Your task to perform on an android device: What's on my calendar today? Image 0: 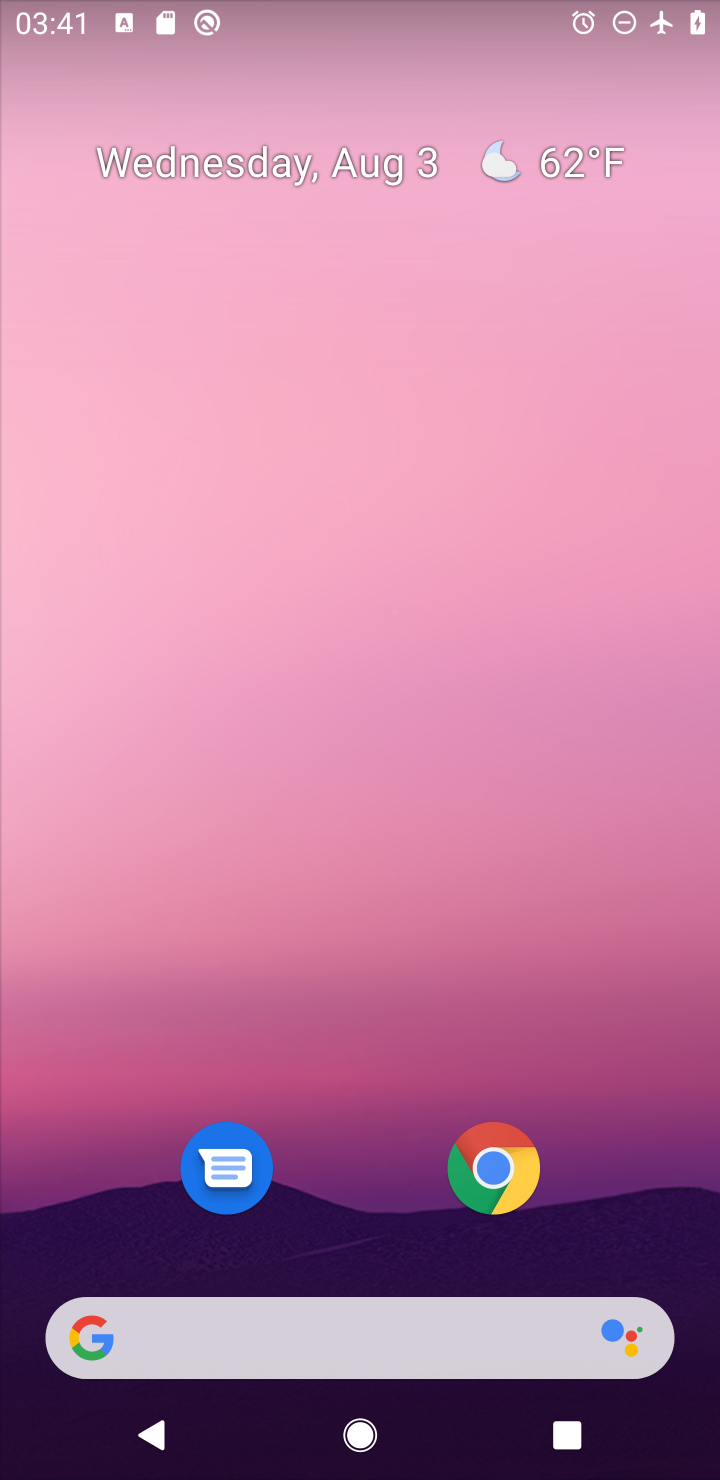
Step 0: press home button
Your task to perform on an android device: What's on my calendar today? Image 1: 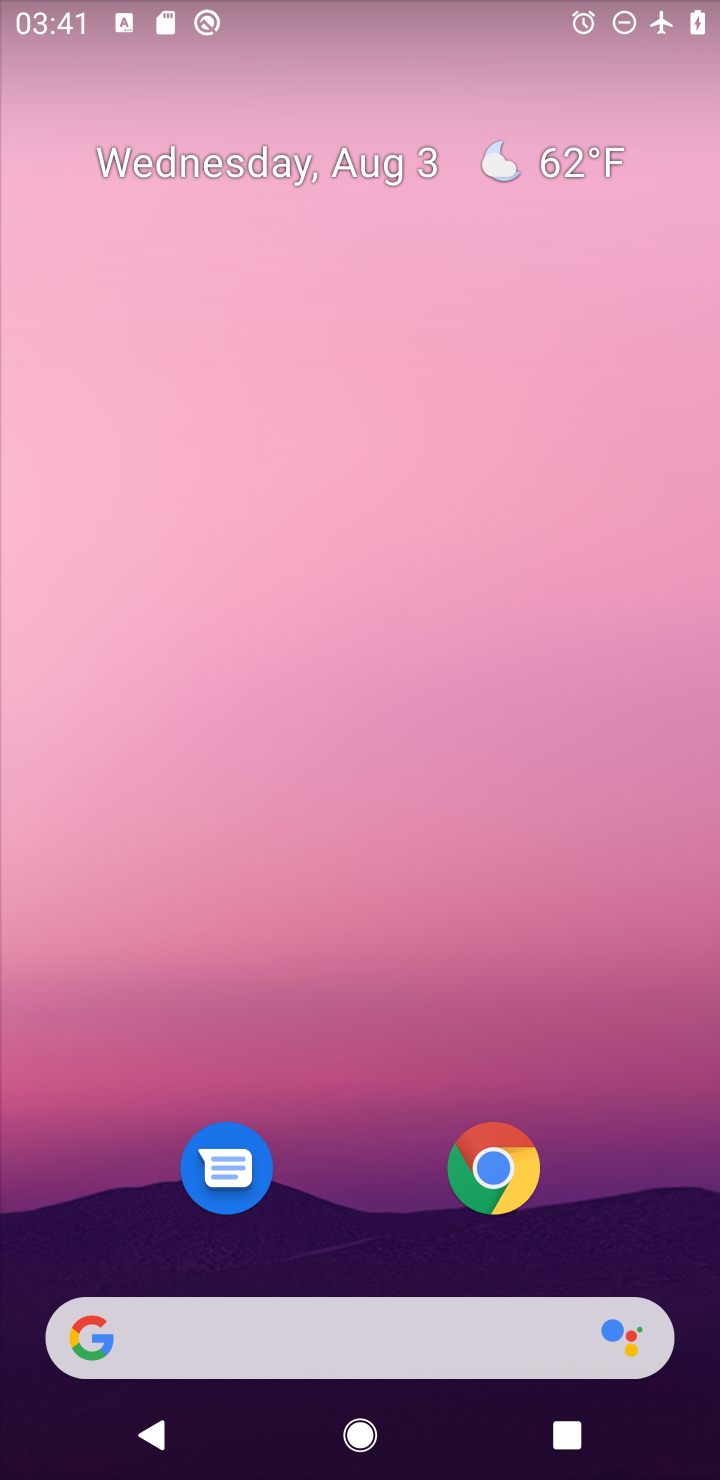
Step 1: drag from (668, 1219) to (579, 252)
Your task to perform on an android device: What's on my calendar today? Image 2: 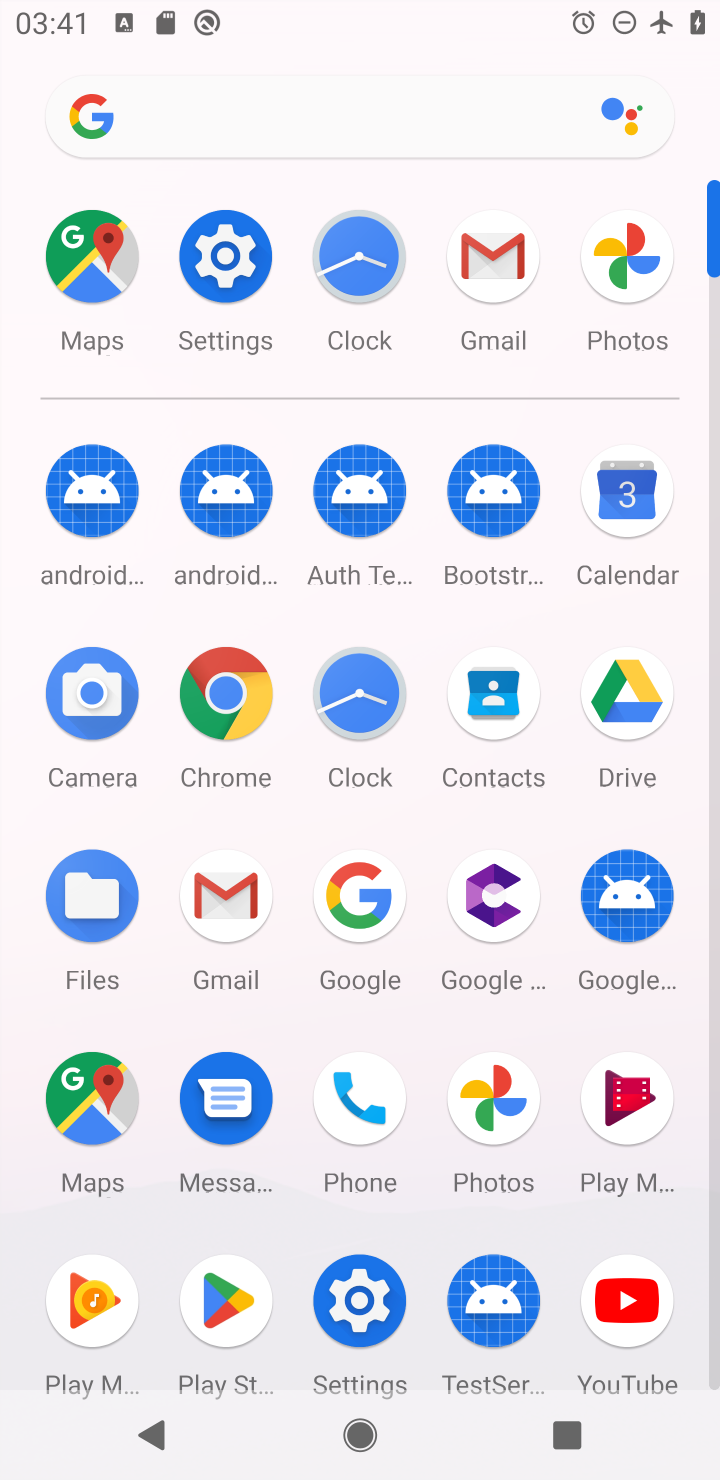
Step 2: click (626, 507)
Your task to perform on an android device: What's on my calendar today? Image 3: 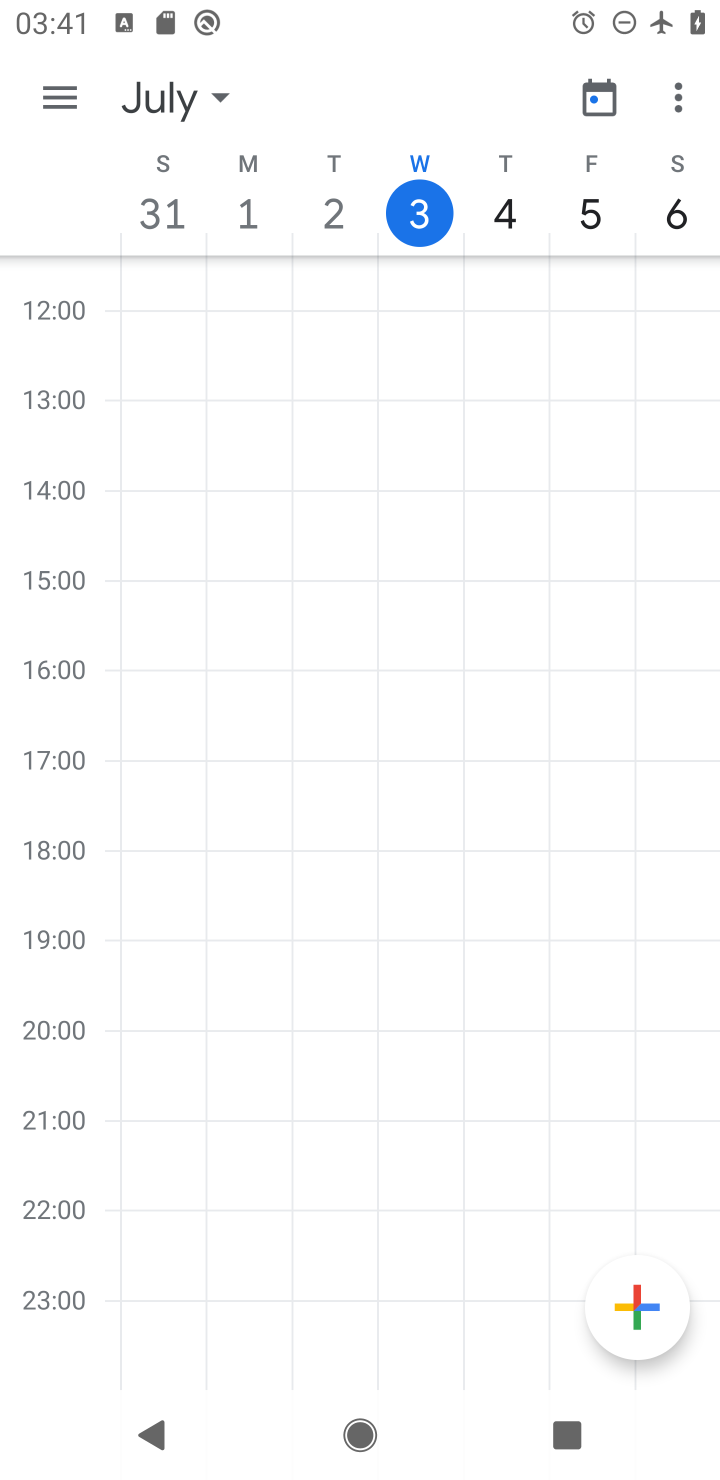
Step 3: drag from (312, 349) to (336, 848)
Your task to perform on an android device: What's on my calendar today? Image 4: 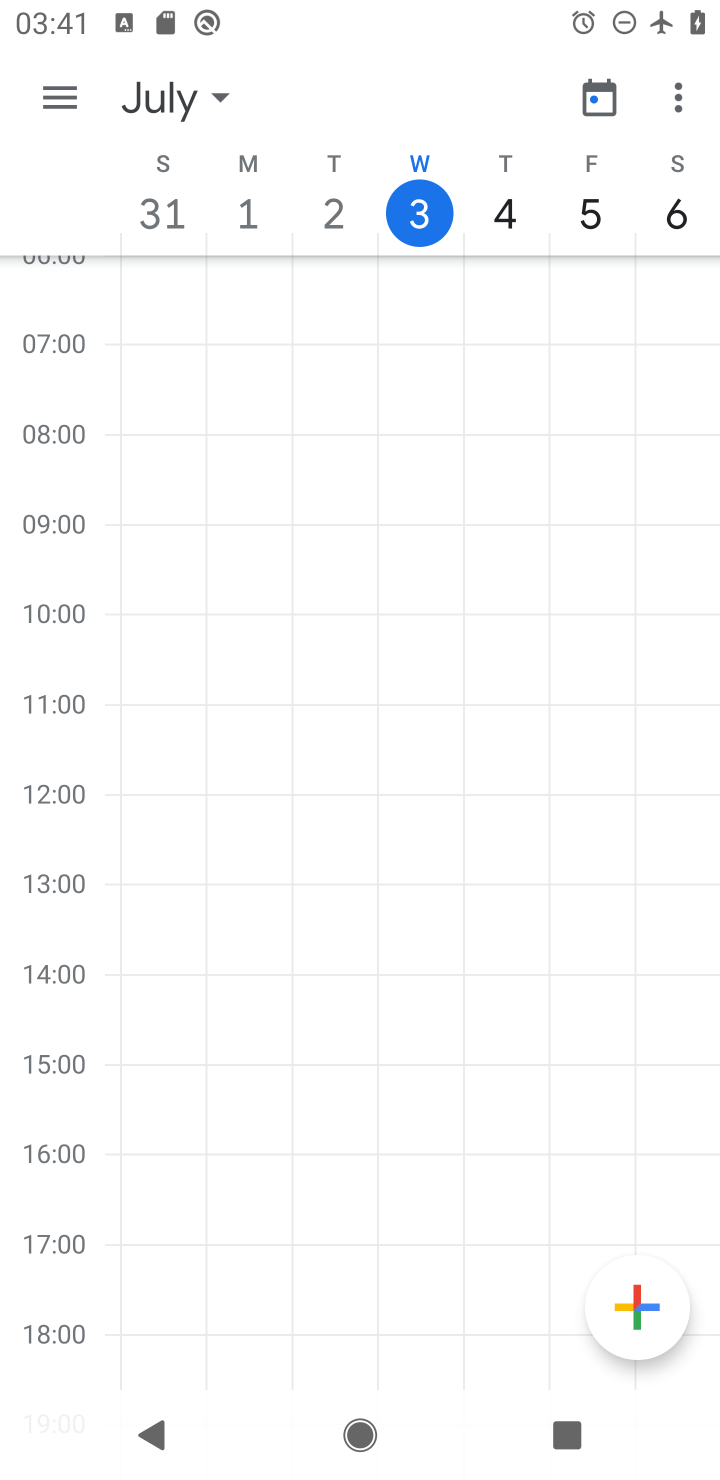
Step 4: click (45, 91)
Your task to perform on an android device: What's on my calendar today? Image 5: 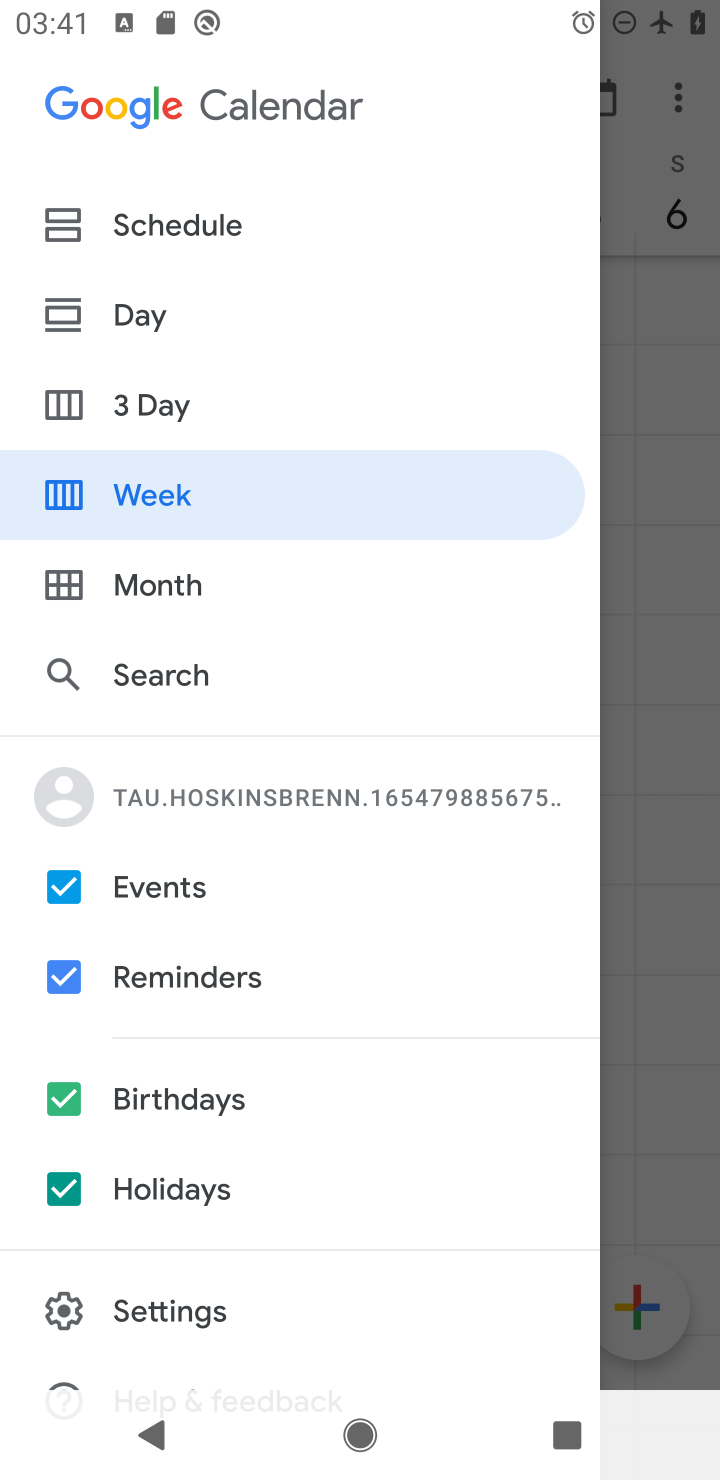
Step 5: click (154, 311)
Your task to perform on an android device: What's on my calendar today? Image 6: 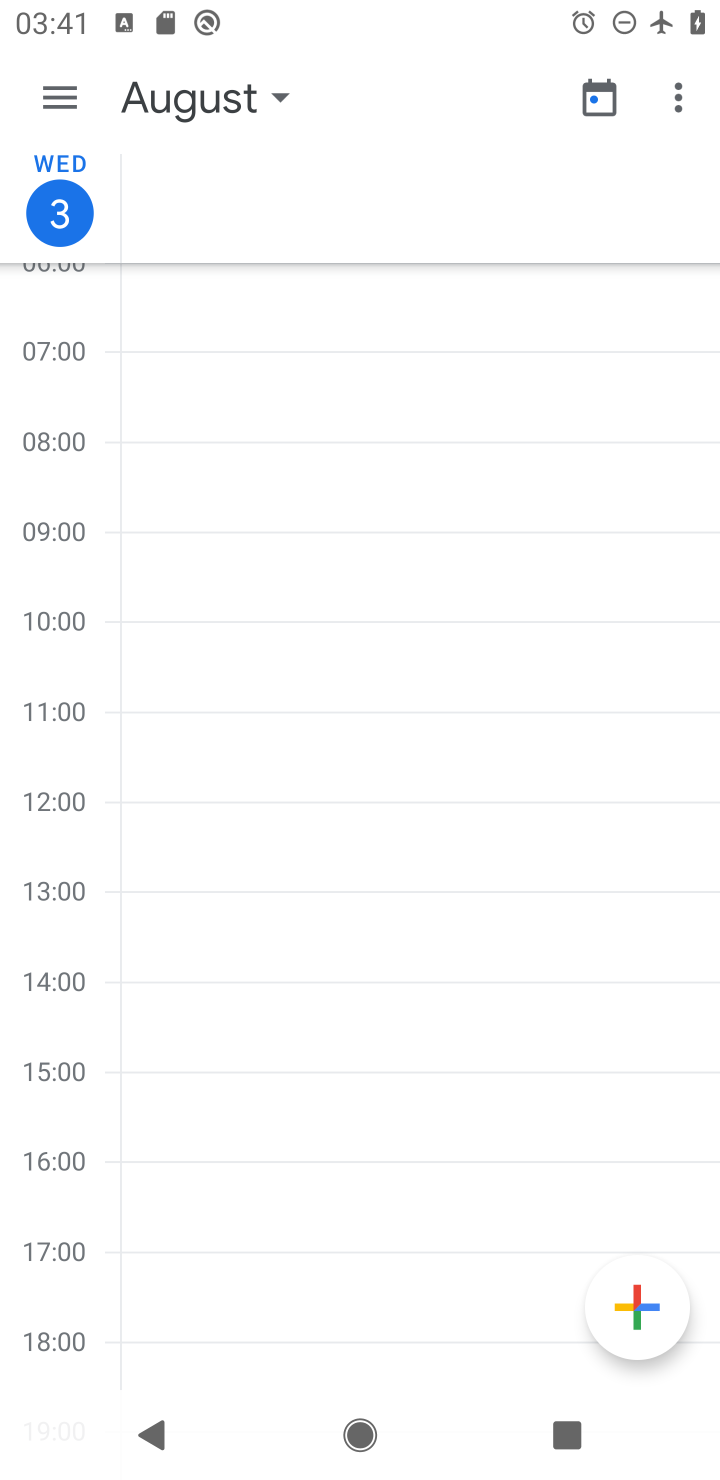
Step 6: task complete